Your task to perform on an android device: turn off airplane mode Image 0: 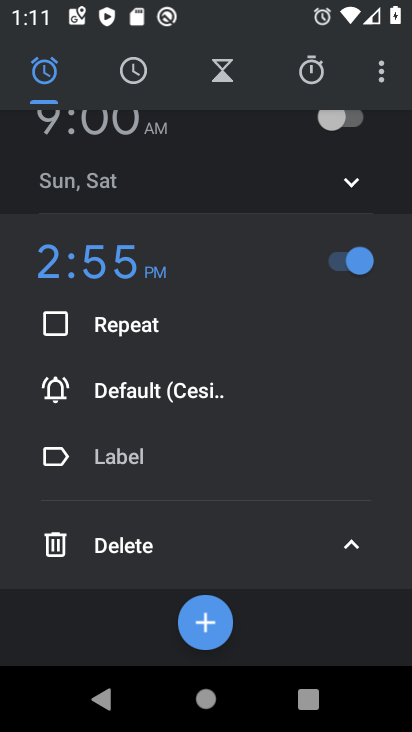
Step 0: press home button
Your task to perform on an android device: turn off airplane mode Image 1: 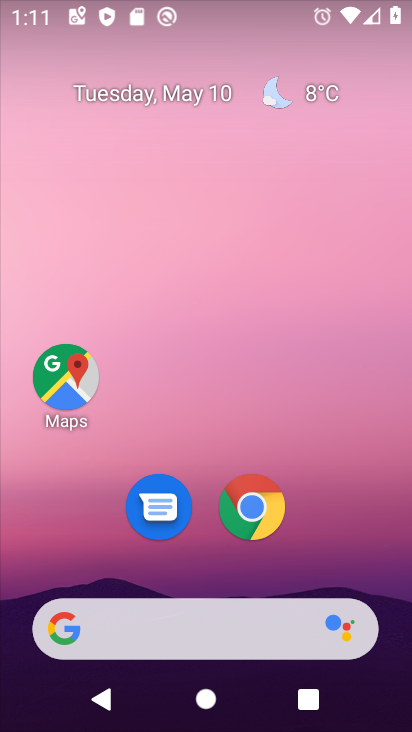
Step 1: drag from (208, 728) to (213, 256)
Your task to perform on an android device: turn off airplane mode Image 2: 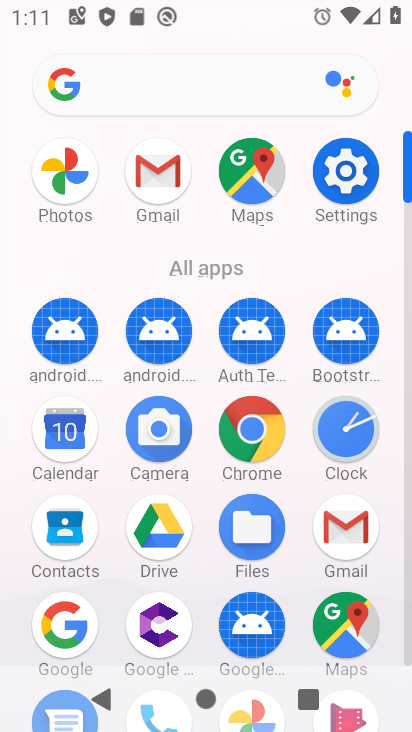
Step 2: drag from (103, 513) to (101, 202)
Your task to perform on an android device: turn off airplane mode Image 3: 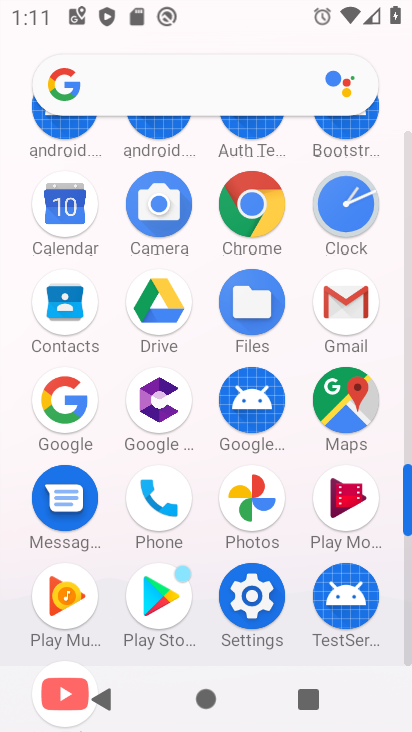
Step 3: click (243, 598)
Your task to perform on an android device: turn off airplane mode Image 4: 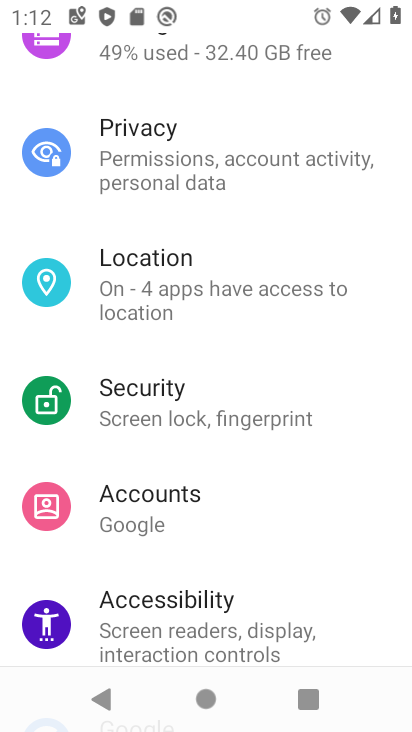
Step 4: drag from (258, 134) to (243, 501)
Your task to perform on an android device: turn off airplane mode Image 5: 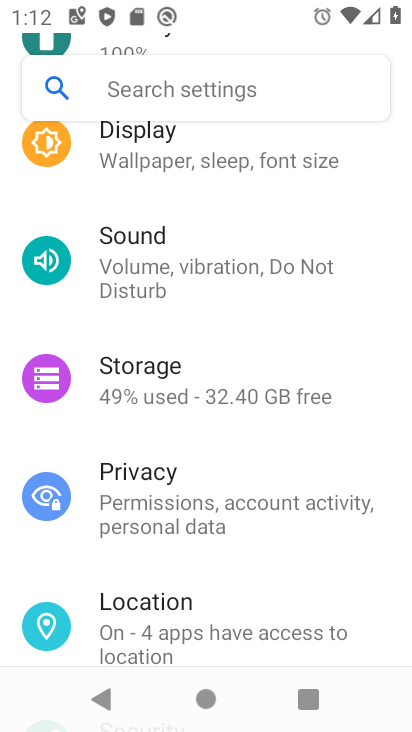
Step 5: drag from (221, 205) to (223, 539)
Your task to perform on an android device: turn off airplane mode Image 6: 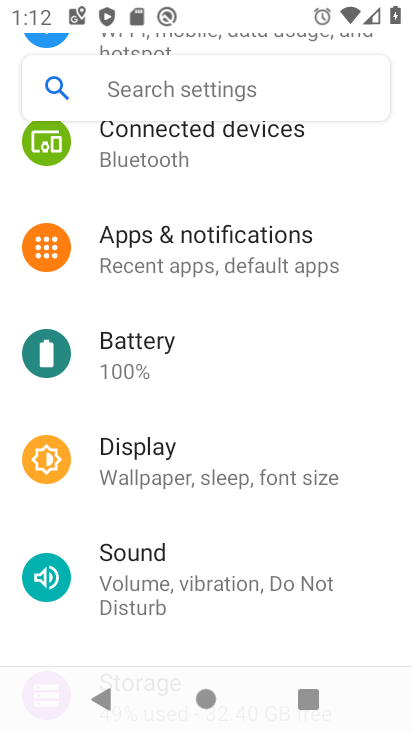
Step 6: drag from (229, 189) to (226, 563)
Your task to perform on an android device: turn off airplane mode Image 7: 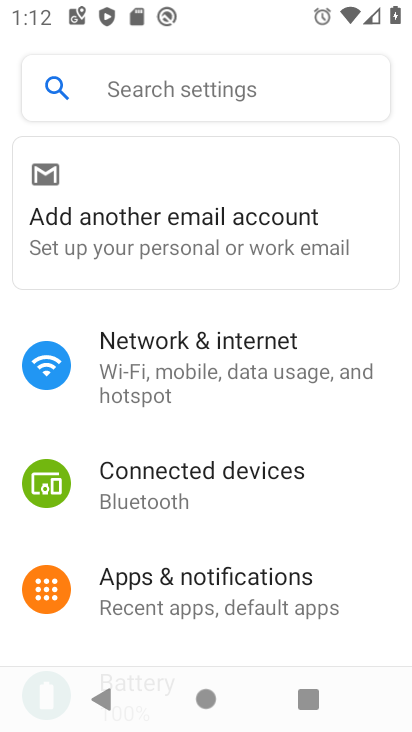
Step 7: click (201, 364)
Your task to perform on an android device: turn off airplane mode Image 8: 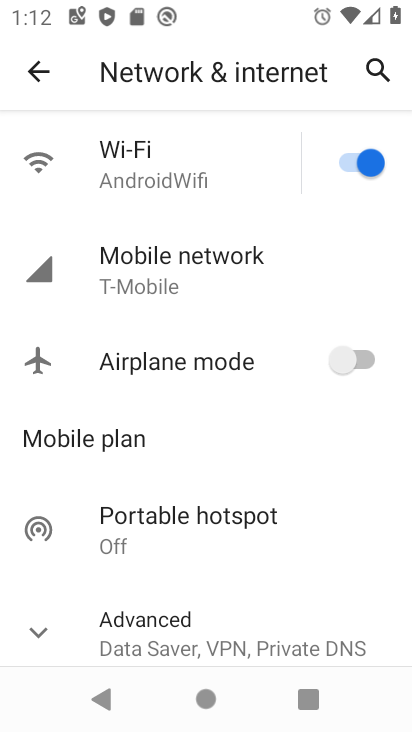
Step 8: task complete